Your task to perform on an android device: Open Google Chrome and click the shortcut for Amazon.com Image 0: 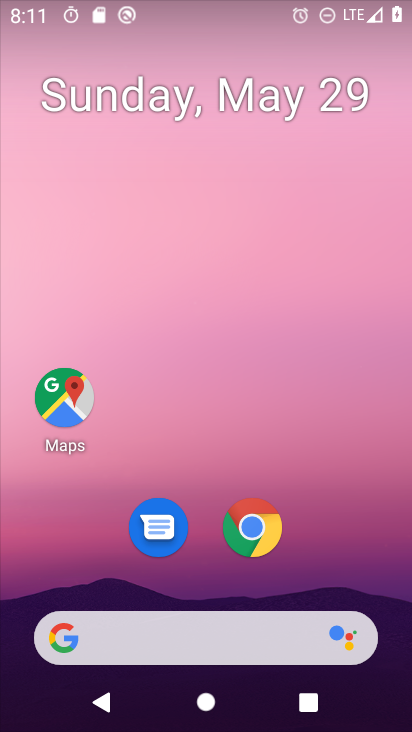
Step 0: drag from (382, 649) to (265, 80)
Your task to perform on an android device: Open Google Chrome and click the shortcut for Amazon.com Image 1: 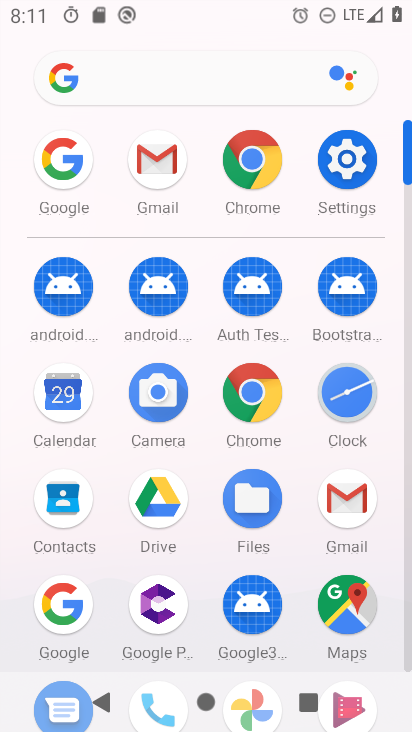
Step 1: click (258, 403)
Your task to perform on an android device: Open Google Chrome and click the shortcut for Amazon.com Image 2: 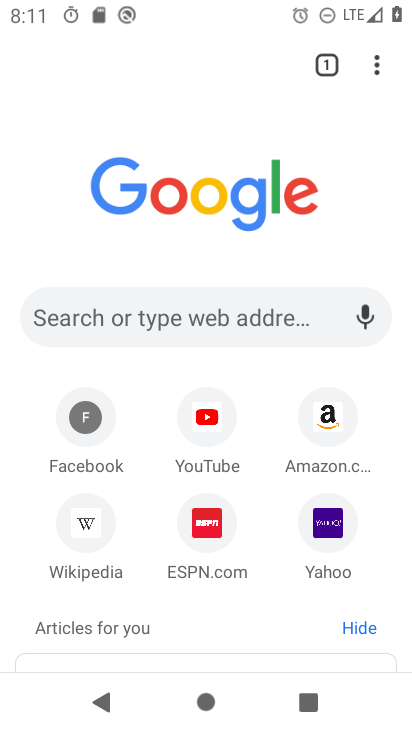
Step 2: click (300, 420)
Your task to perform on an android device: Open Google Chrome and click the shortcut for Amazon.com Image 3: 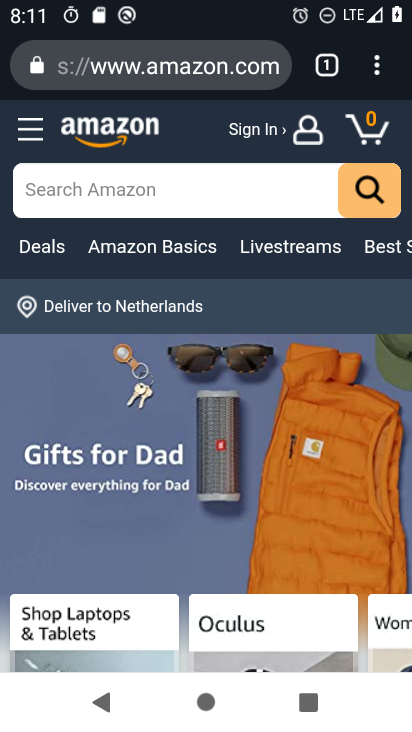
Step 3: task complete